Your task to perform on an android device: open app "Google Docs" (install if not already installed) Image 0: 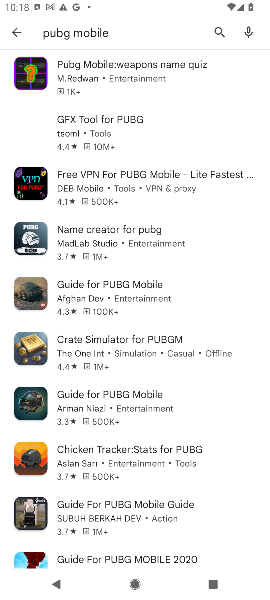
Step 0: click (216, 31)
Your task to perform on an android device: open app "Google Docs" (install if not already installed) Image 1: 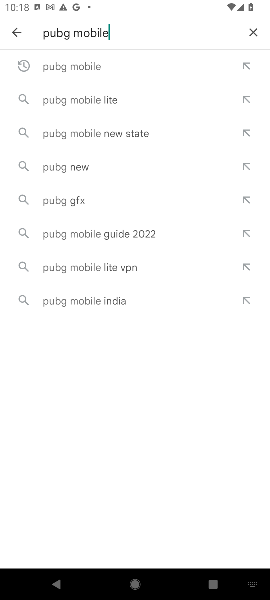
Step 1: click (228, 27)
Your task to perform on an android device: open app "Google Docs" (install if not already installed) Image 2: 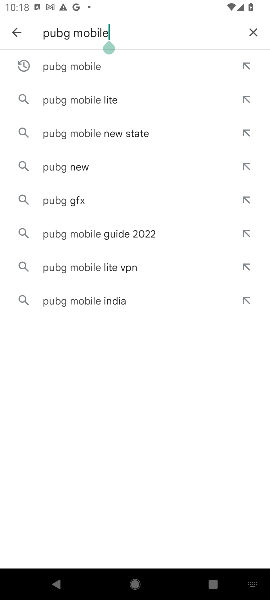
Step 2: click (258, 32)
Your task to perform on an android device: open app "Google Docs" (install if not already installed) Image 3: 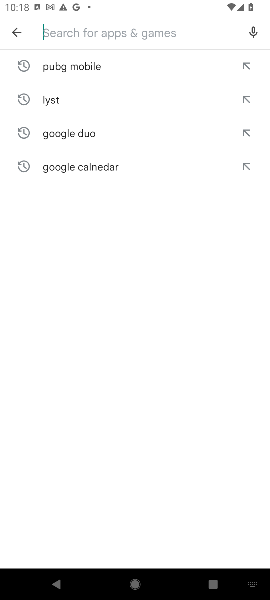
Step 3: type "google docs"
Your task to perform on an android device: open app "Google Docs" (install if not already installed) Image 4: 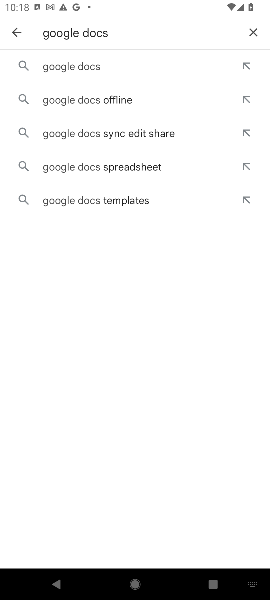
Step 4: click (127, 71)
Your task to perform on an android device: open app "Google Docs" (install if not already installed) Image 5: 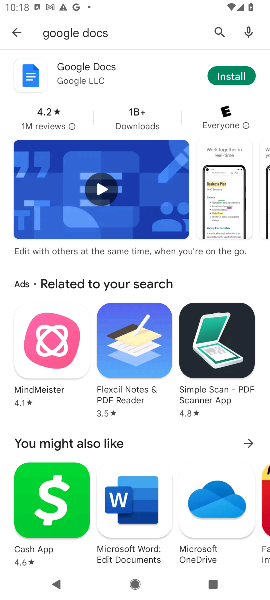
Step 5: click (222, 64)
Your task to perform on an android device: open app "Google Docs" (install if not already installed) Image 6: 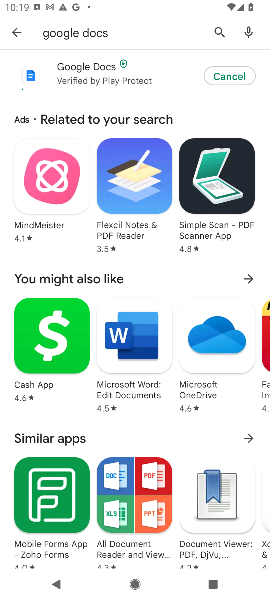
Step 6: task complete